Your task to perform on an android device: Go to calendar. Show me events next week Image 0: 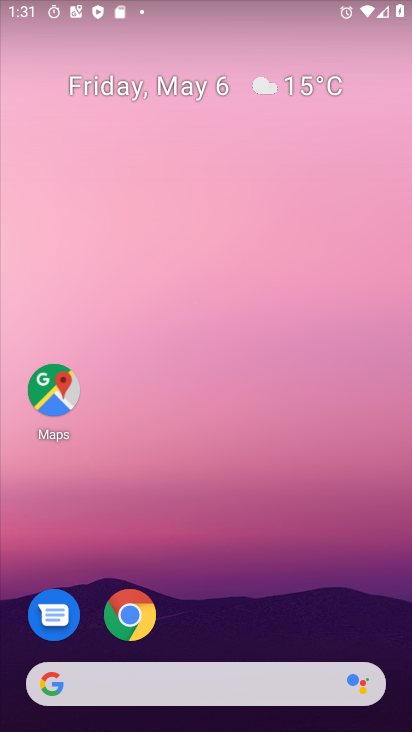
Step 0: drag from (264, 517) to (301, 0)
Your task to perform on an android device: Go to calendar. Show me events next week Image 1: 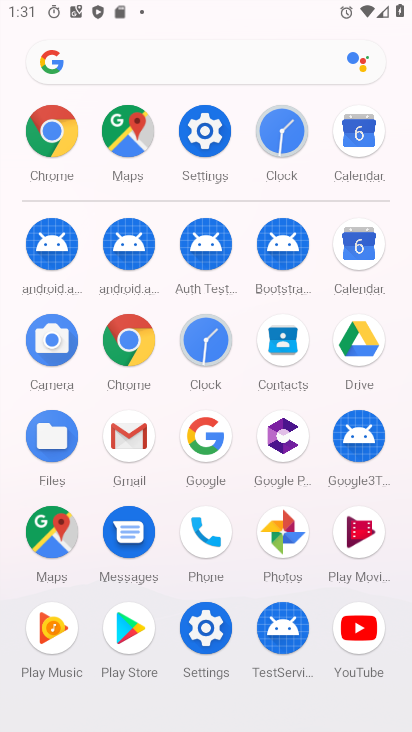
Step 1: click (364, 136)
Your task to perform on an android device: Go to calendar. Show me events next week Image 2: 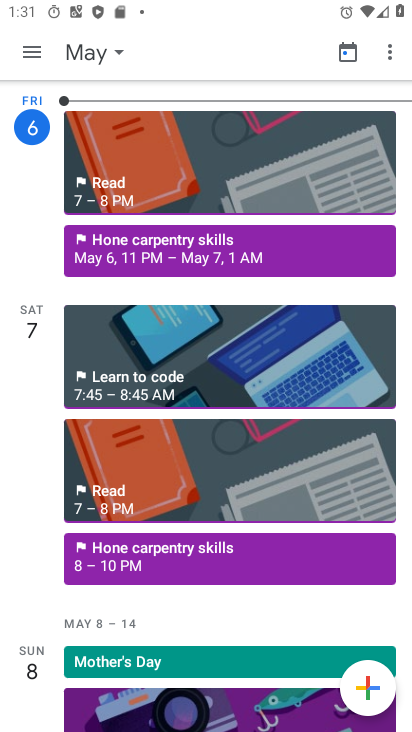
Step 2: click (29, 44)
Your task to perform on an android device: Go to calendar. Show me events next week Image 3: 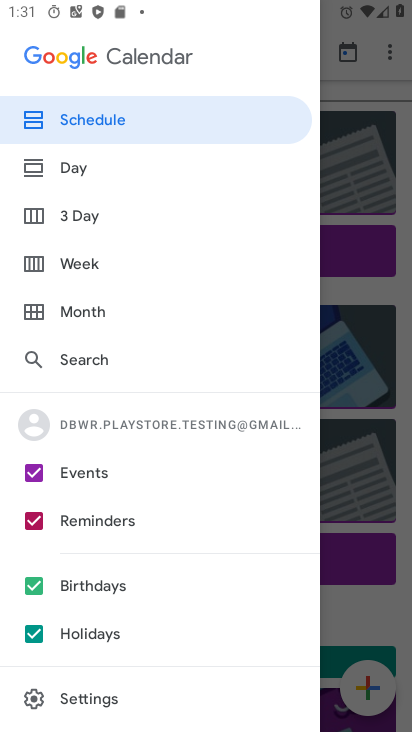
Step 3: click (30, 260)
Your task to perform on an android device: Go to calendar. Show me events next week Image 4: 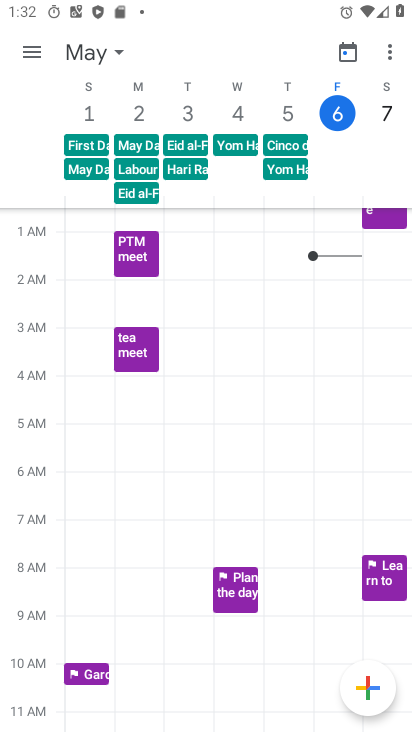
Step 4: task complete